Your task to perform on an android device: snooze an email in the gmail app Image 0: 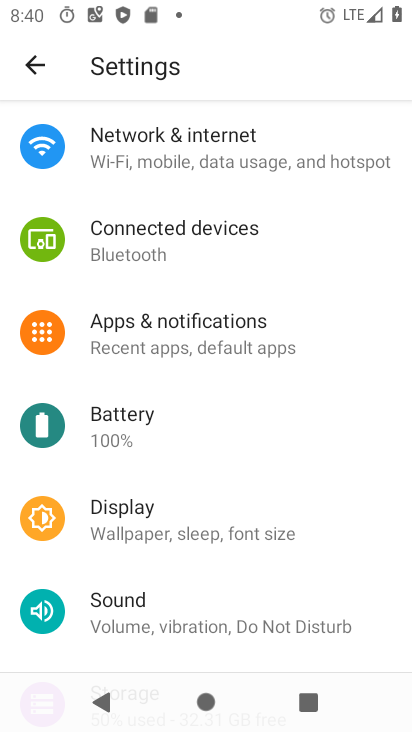
Step 0: press home button
Your task to perform on an android device: snooze an email in the gmail app Image 1: 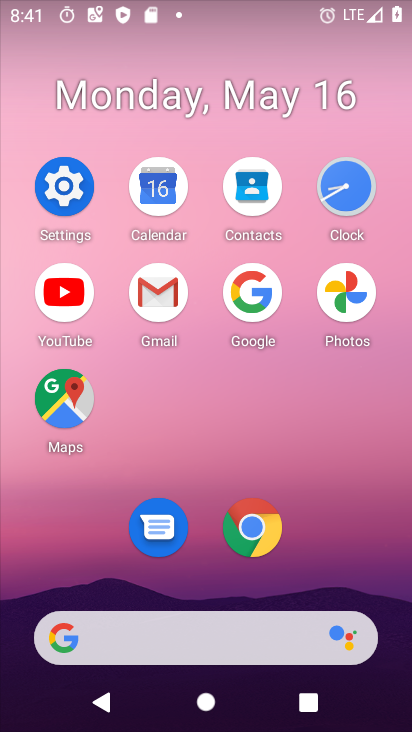
Step 1: click (149, 298)
Your task to perform on an android device: snooze an email in the gmail app Image 2: 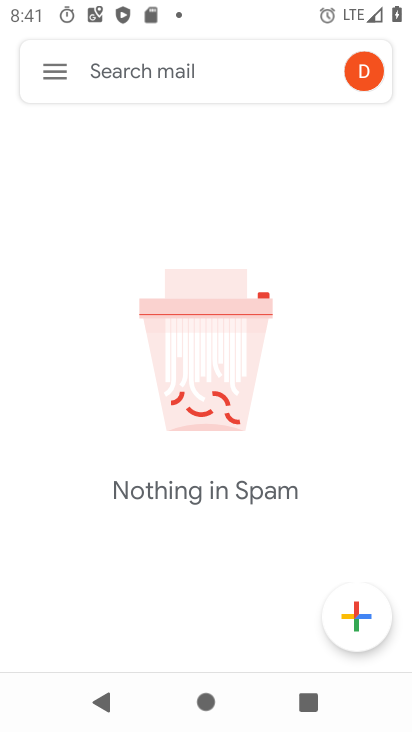
Step 2: click (68, 84)
Your task to perform on an android device: snooze an email in the gmail app Image 3: 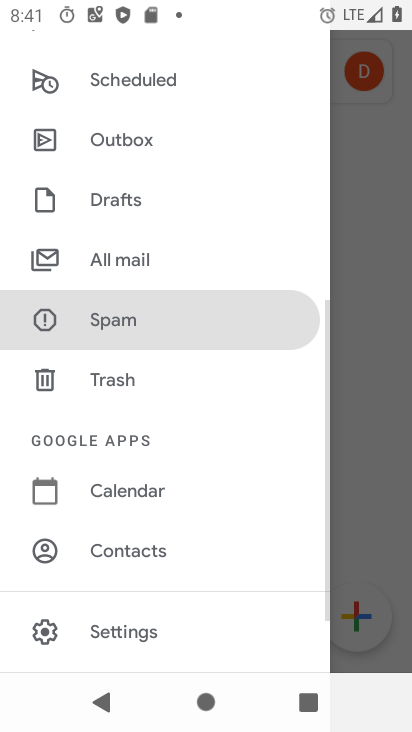
Step 3: drag from (175, 555) to (151, 461)
Your task to perform on an android device: snooze an email in the gmail app Image 4: 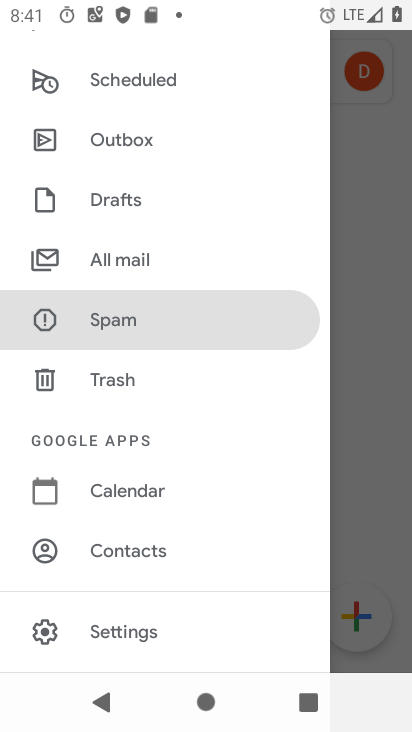
Step 4: click (158, 268)
Your task to perform on an android device: snooze an email in the gmail app Image 5: 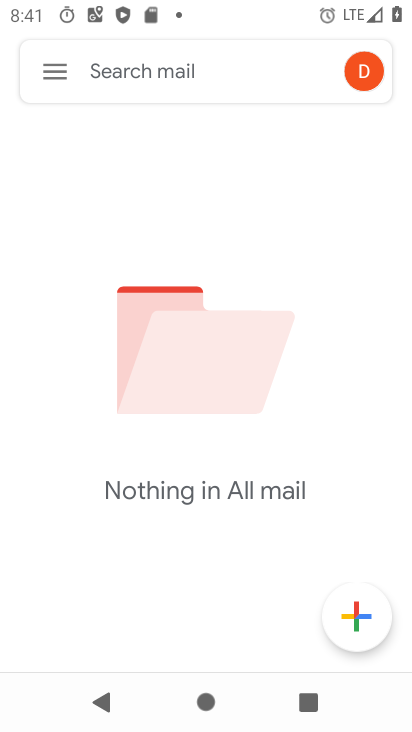
Step 5: task complete